Your task to perform on an android device: Search for seafood restaurants on Google Maps Image 0: 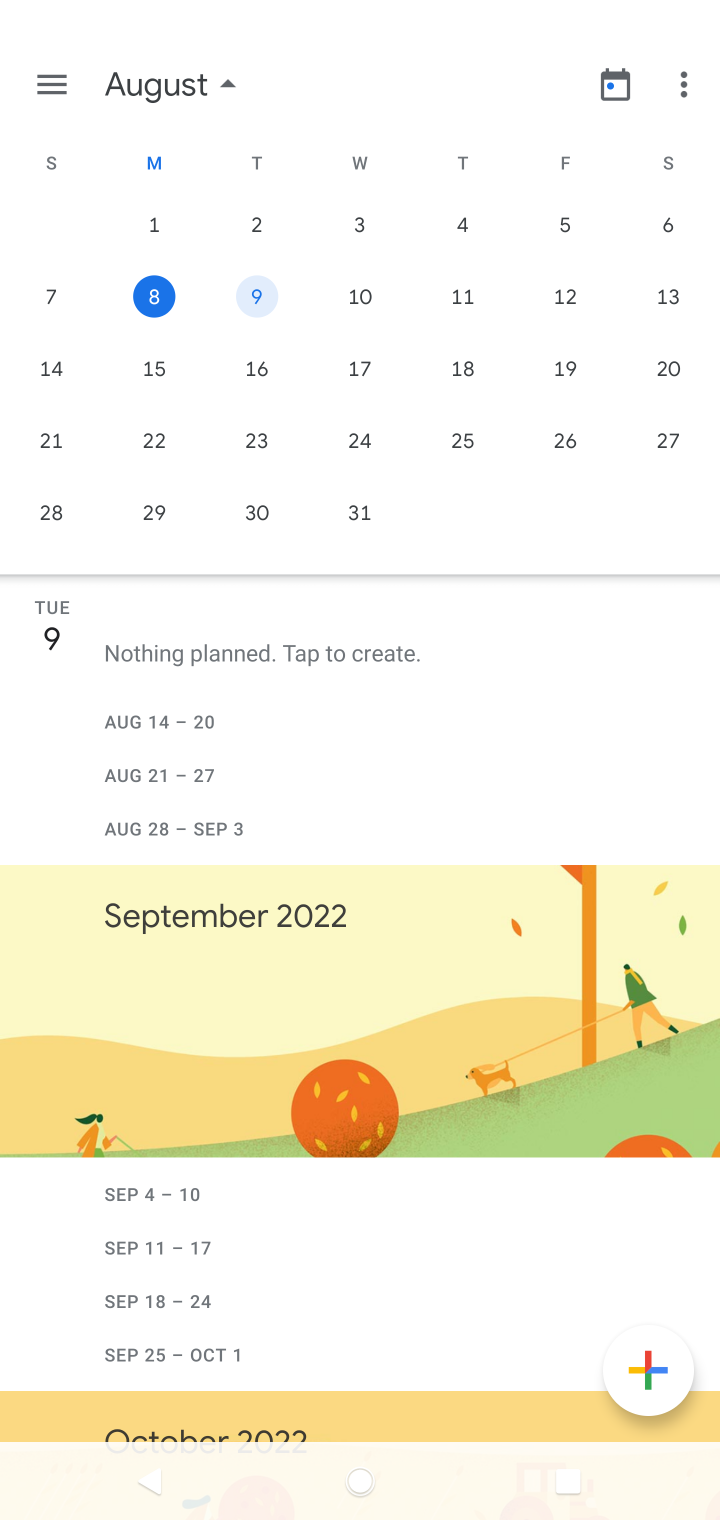
Step 0: press home button
Your task to perform on an android device: Search for seafood restaurants on Google Maps Image 1: 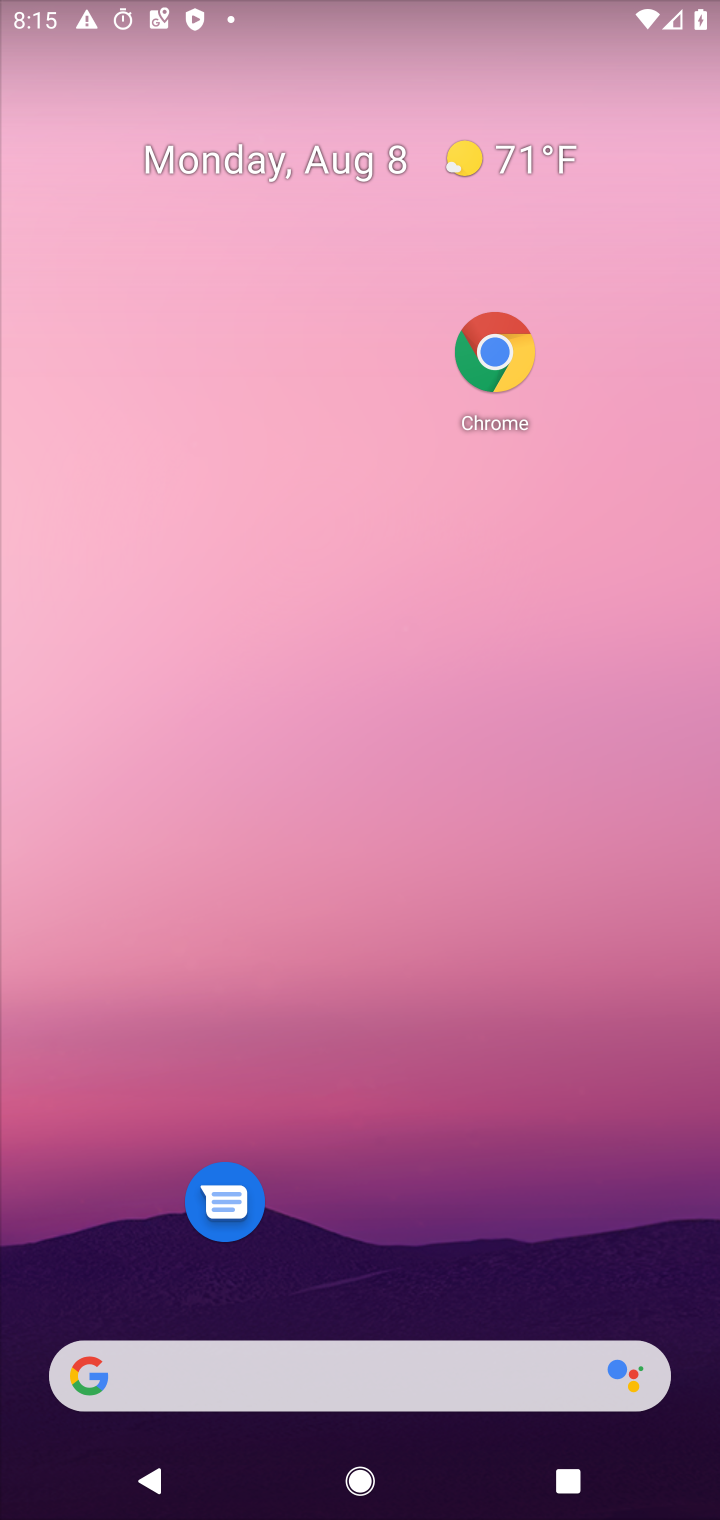
Step 1: drag from (377, 1251) to (503, 386)
Your task to perform on an android device: Search for seafood restaurants on Google Maps Image 2: 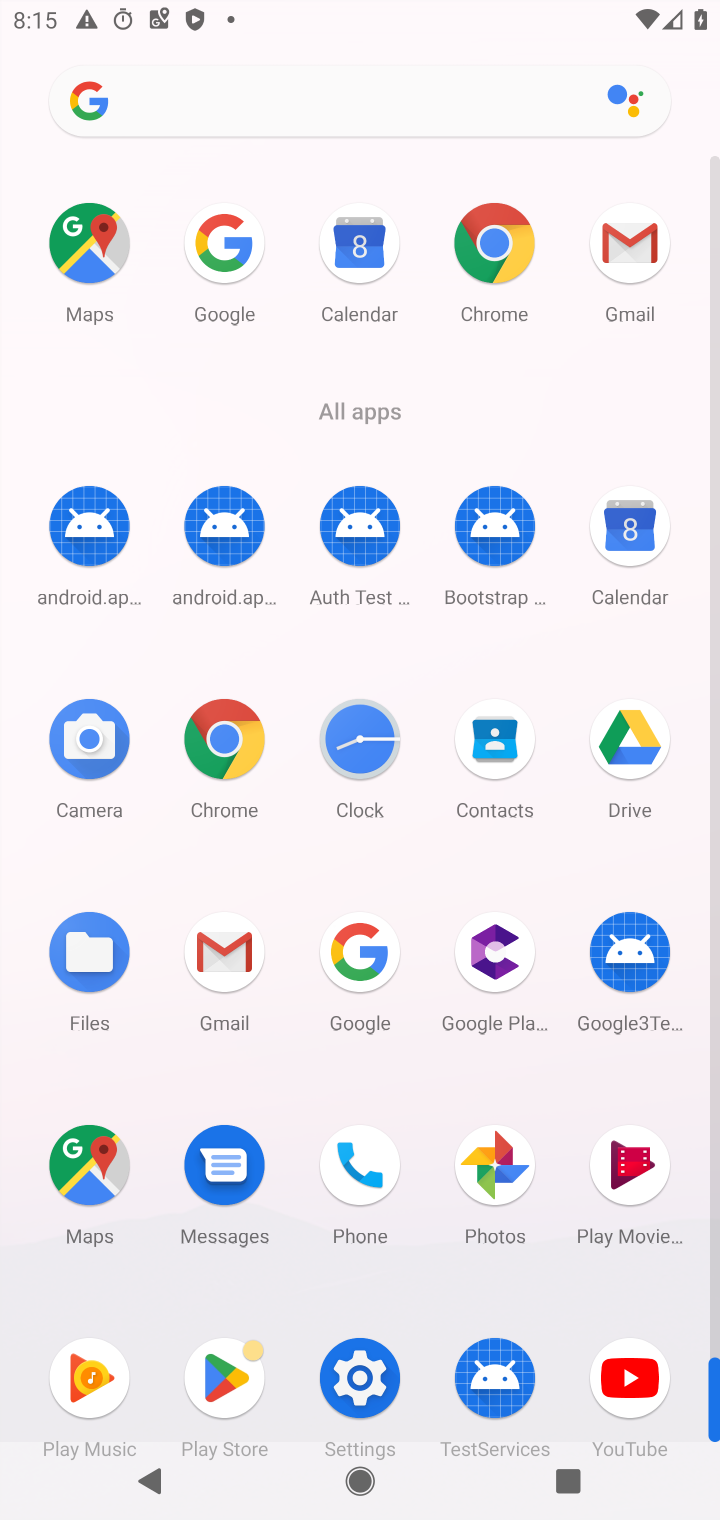
Step 2: click (95, 1198)
Your task to perform on an android device: Search for seafood restaurants on Google Maps Image 3: 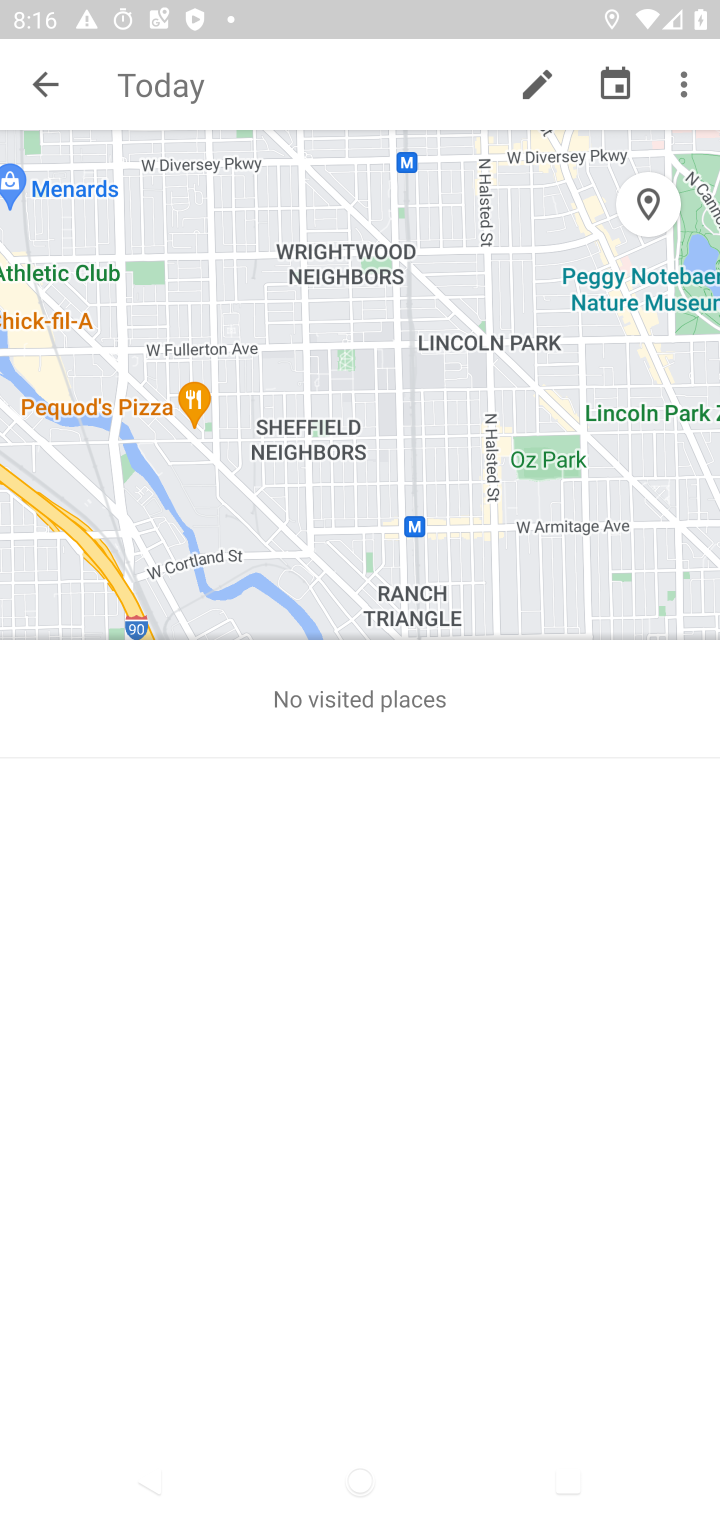
Step 3: click (64, 98)
Your task to perform on an android device: Search for seafood restaurants on Google Maps Image 4: 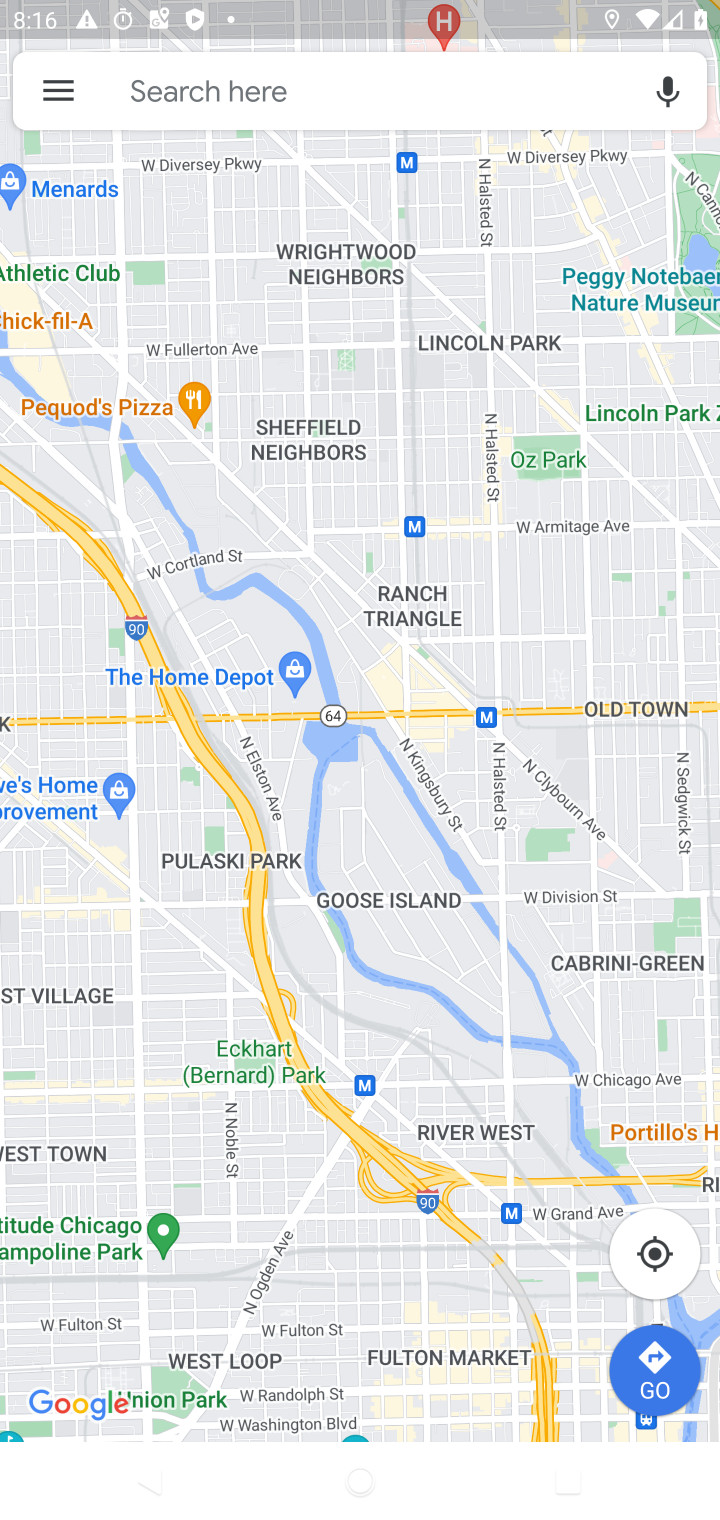
Step 4: click (227, 91)
Your task to perform on an android device: Search for seafood restaurants on Google Maps Image 5: 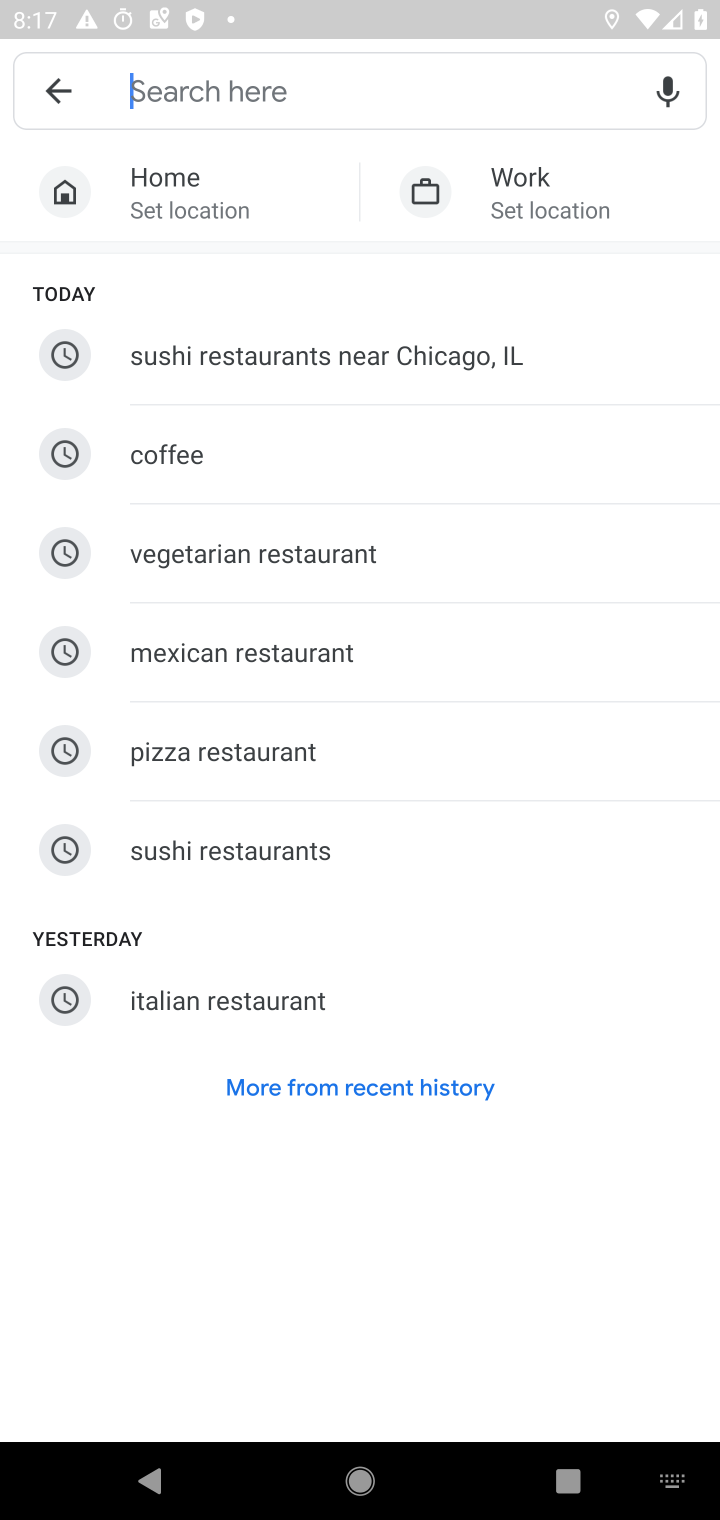
Step 5: type "seafood"
Your task to perform on an android device: Search for seafood restaurants on Google Maps Image 6: 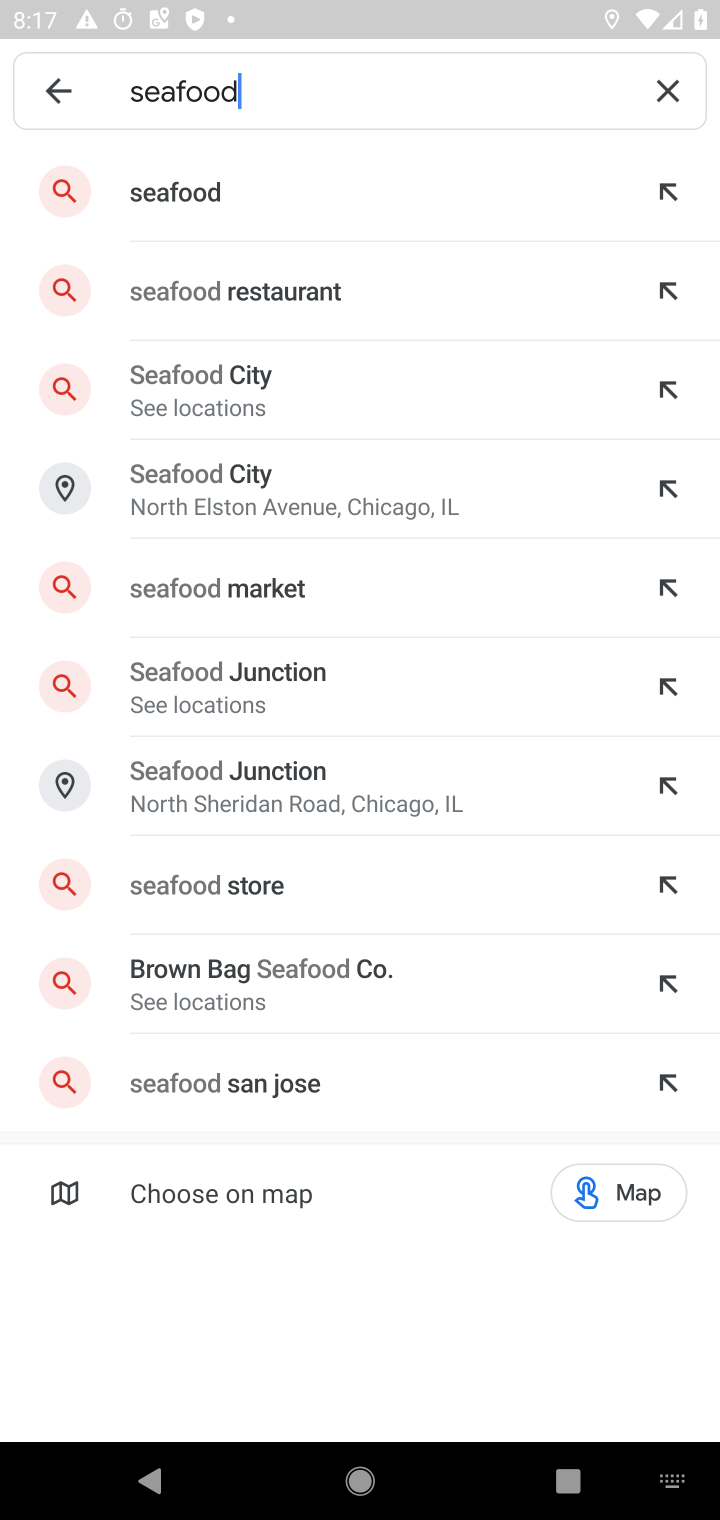
Step 6: click (281, 293)
Your task to perform on an android device: Search for seafood restaurants on Google Maps Image 7: 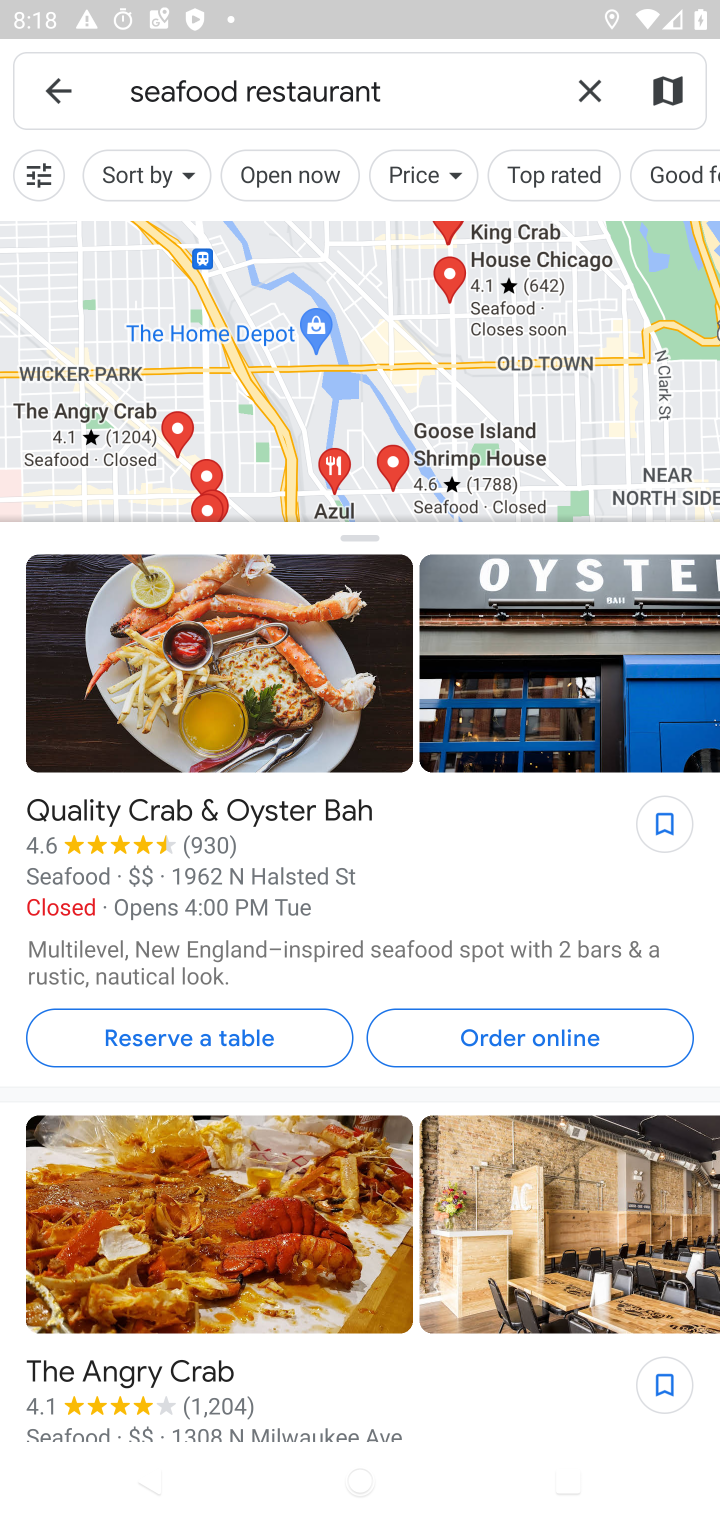
Step 7: task complete